Your task to perform on an android device: turn off location Image 0: 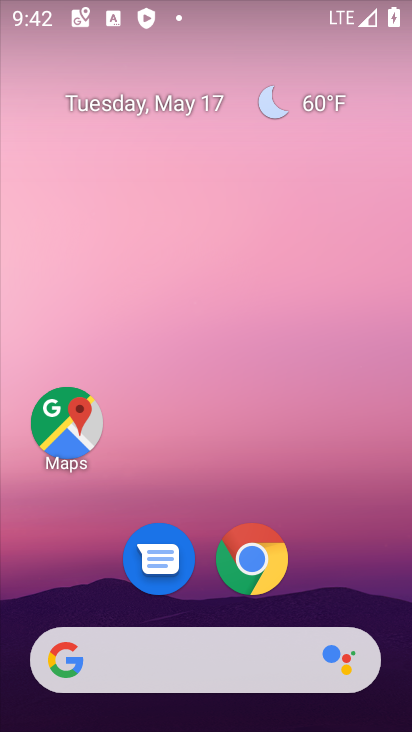
Step 0: drag from (207, 574) to (207, 218)
Your task to perform on an android device: turn off location Image 1: 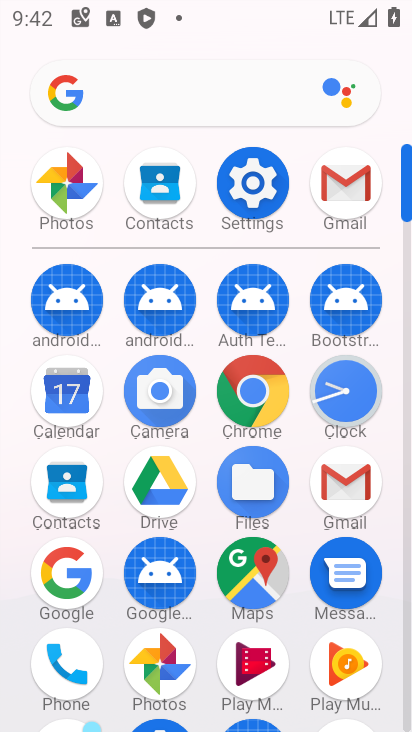
Step 1: click (218, 167)
Your task to perform on an android device: turn off location Image 2: 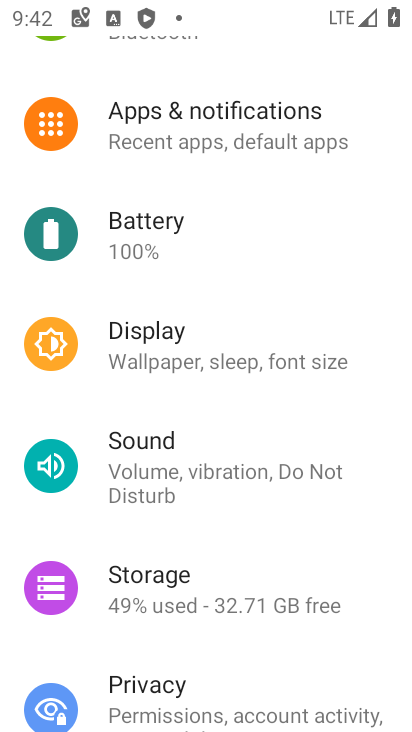
Step 2: drag from (215, 587) to (242, 258)
Your task to perform on an android device: turn off location Image 3: 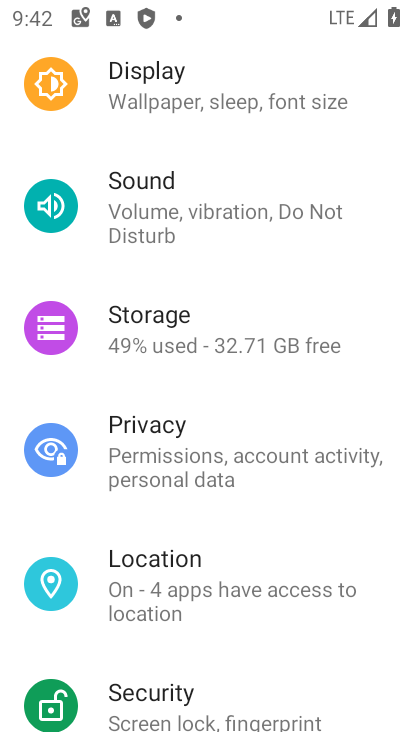
Step 3: click (184, 565)
Your task to perform on an android device: turn off location Image 4: 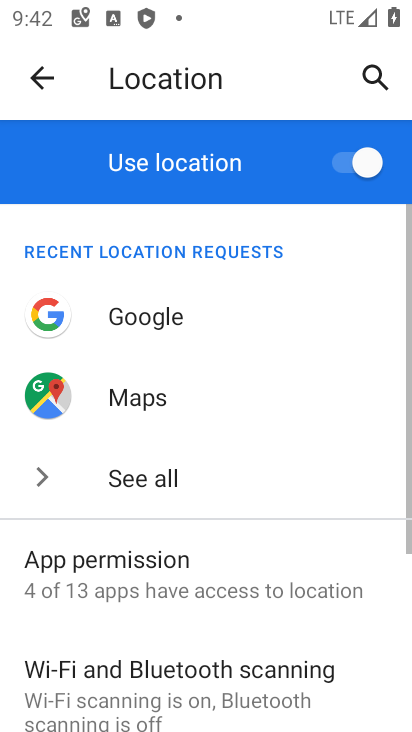
Step 4: click (336, 171)
Your task to perform on an android device: turn off location Image 5: 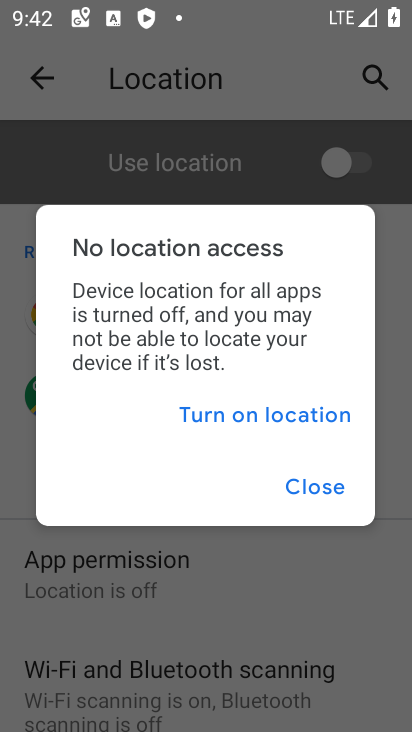
Step 5: task complete